Your task to perform on an android device: Go to Google maps Image 0: 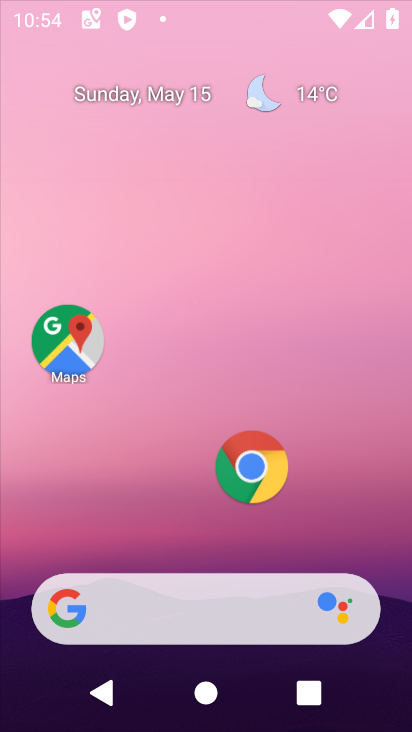
Step 0: click (224, 18)
Your task to perform on an android device: Go to Google maps Image 1: 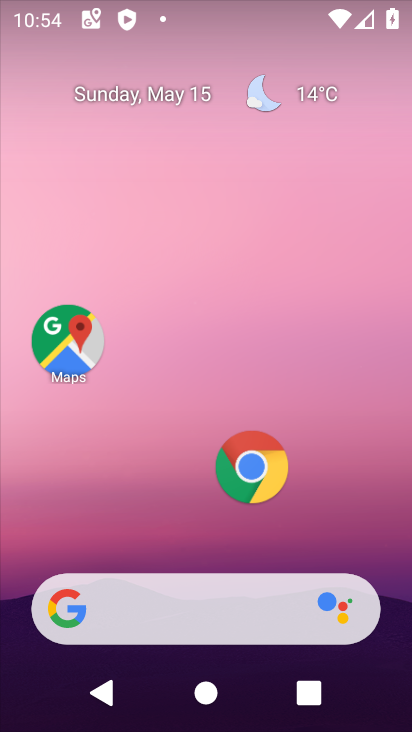
Step 1: drag from (227, 546) to (242, 125)
Your task to perform on an android device: Go to Google maps Image 2: 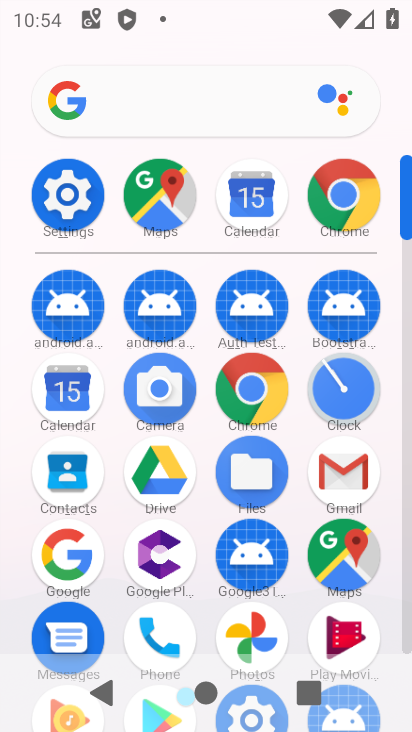
Step 2: drag from (200, 545) to (172, 324)
Your task to perform on an android device: Go to Google maps Image 3: 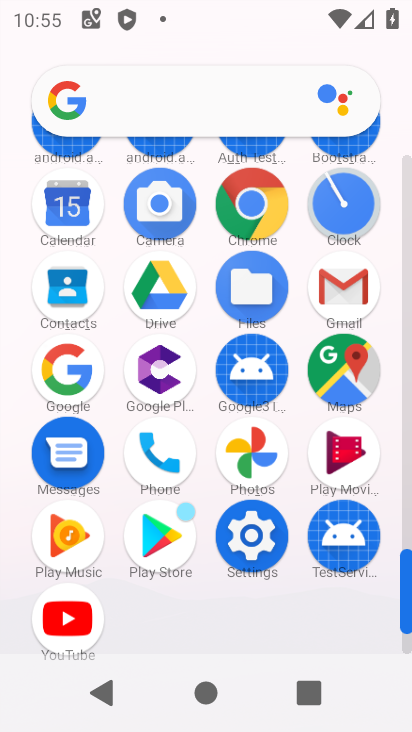
Step 3: click (334, 361)
Your task to perform on an android device: Go to Google maps Image 4: 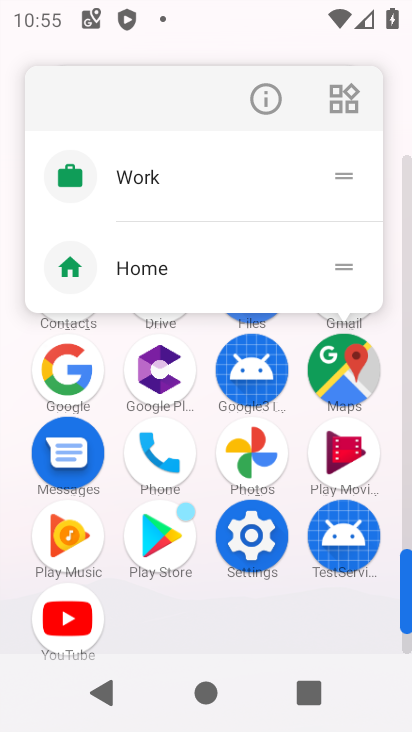
Step 4: click (272, 95)
Your task to perform on an android device: Go to Google maps Image 5: 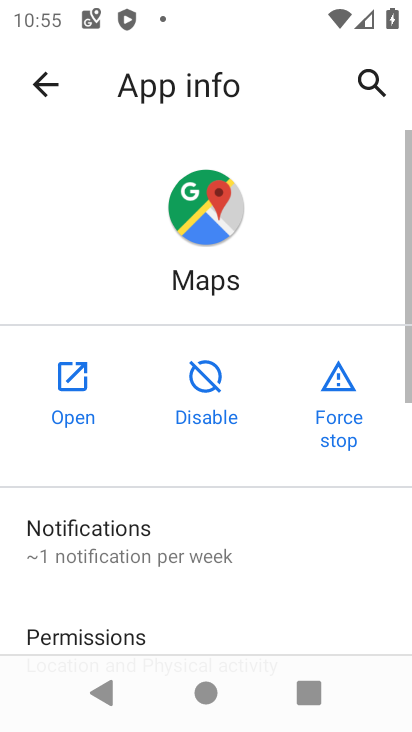
Step 5: click (111, 359)
Your task to perform on an android device: Go to Google maps Image 6: 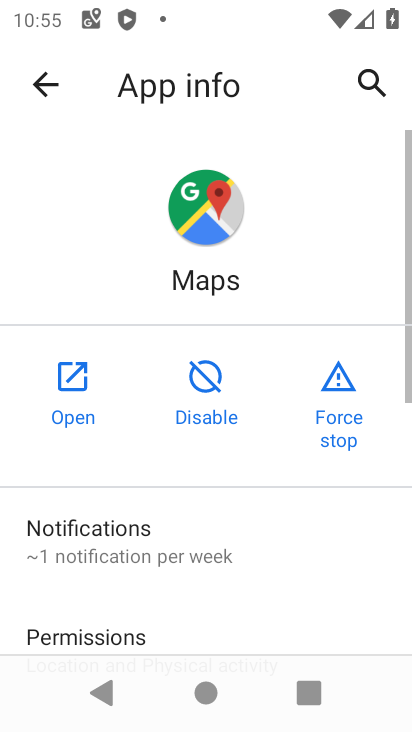
Step 6: click (110, 358)
Your task to perform on an android device: Go to Google maps Image 7: 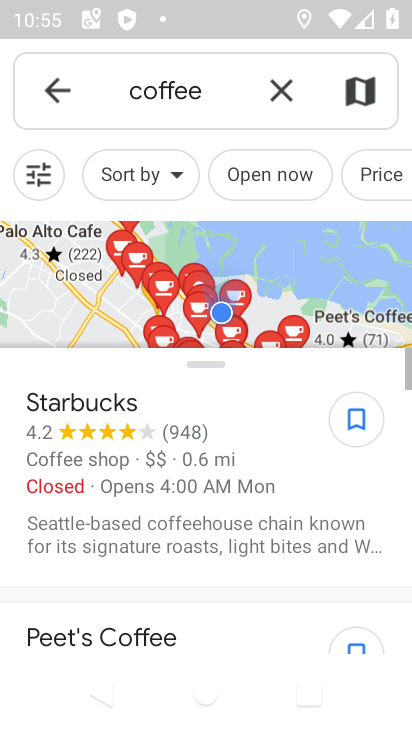
Step 7: task complete